Your task to perform on an android device: See recent photos Image 0: 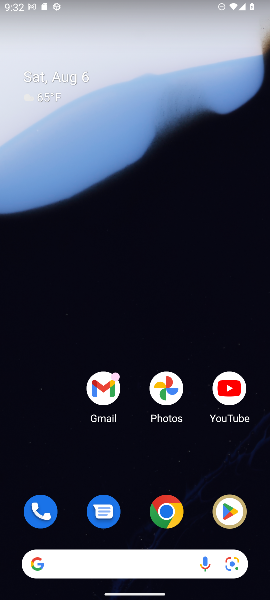
Step 0: press home button
Your task to perform on an android device: See recent photos Image 1: 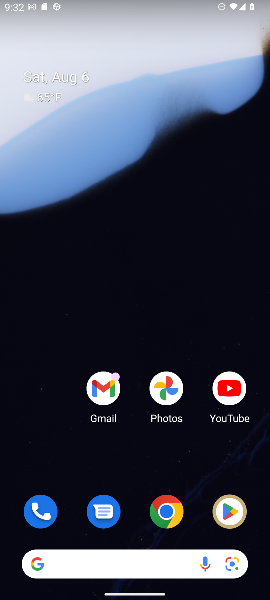
Step 1: press home button
Your task to perform on an android device: See recent photos Image 2: 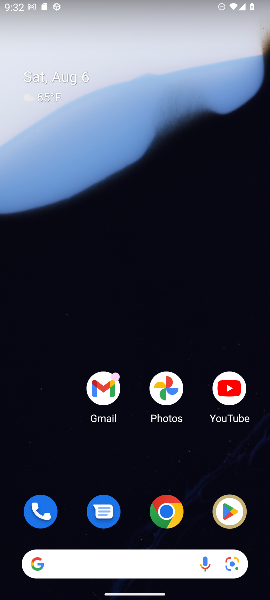
Step 2: press home button
Your task to perform on an android device: See recent photos Image 3: 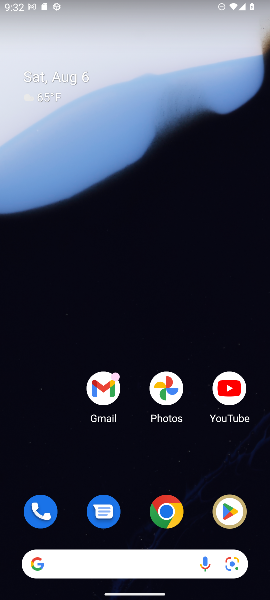
Step 3: drag from (118, 460) to (130, 165)
Your task to perform on an android device: See recent photos Image 4: 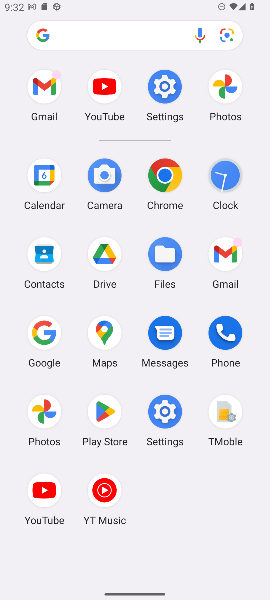
Step 4: click (42, 395)
Your task to perform on an android device: See recent photos Image 5: 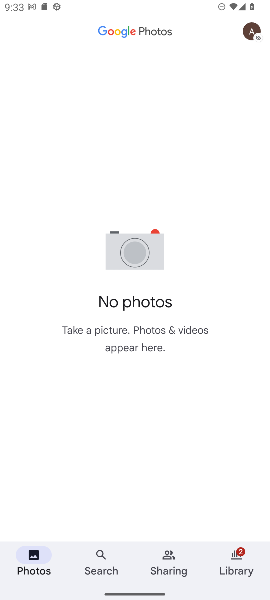
Step 5: task complete